Your task to perform on an android device: turn off location history Image 0: 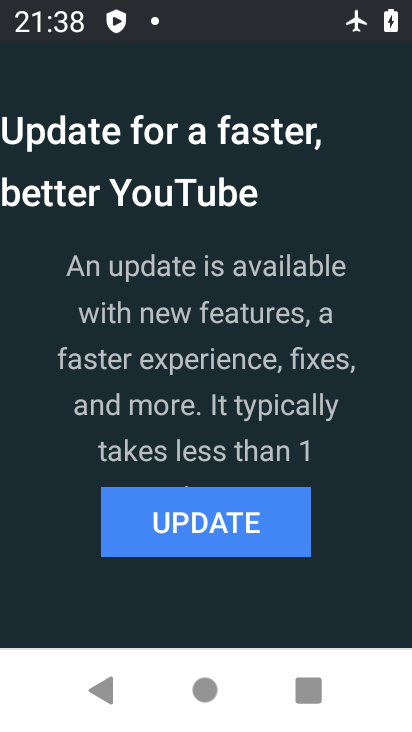
Step 0: press home button
Your task to perform on an android device: turn off location history Image 1: 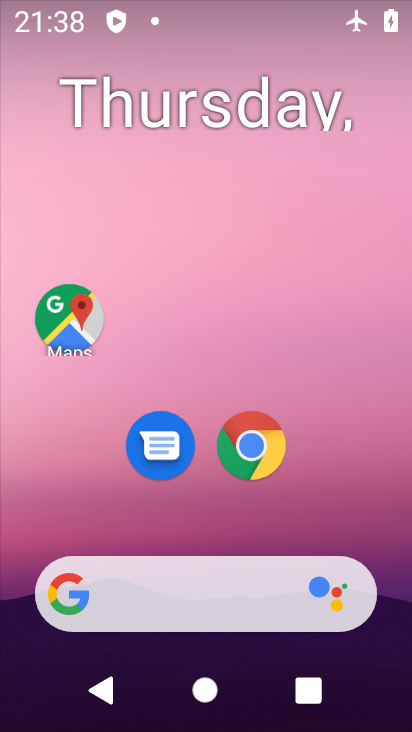
Step 1: drag from (78, 530) to (279, 82)
Your task to perform on an android device: turn off location history Image 2: 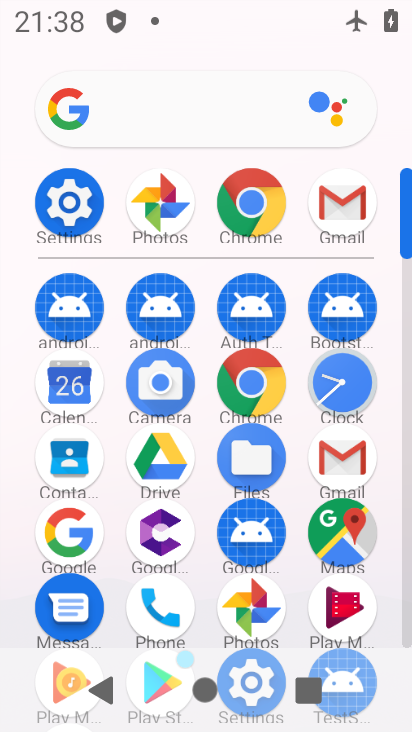
Step 2: click (75, 192)
Your task to perform on an android device: turn off location history Image 3: 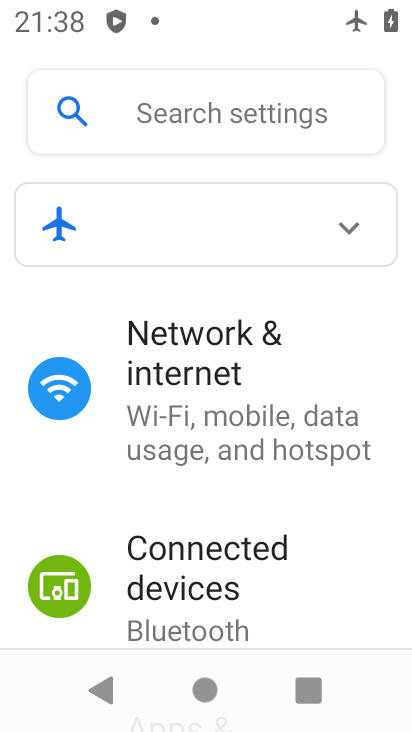
Step 3: drag from (5, 665) to (196, 109)
Your task to perform on an android device: turn off location history Image 4: 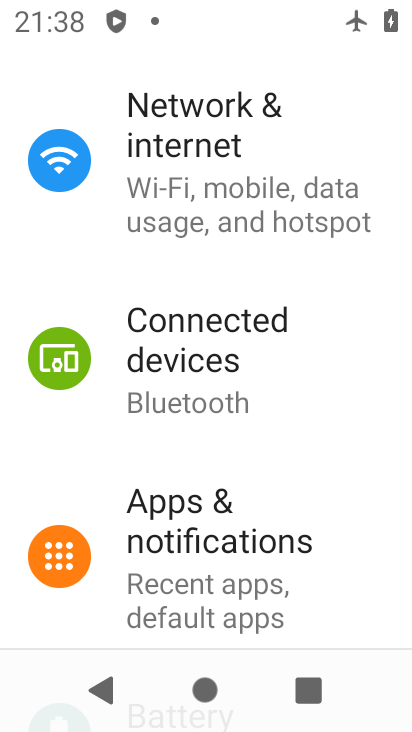
Step 4: drag from (68, 492) to (235, 161)
Your task to perform on an android device: turn off location history Image 5: 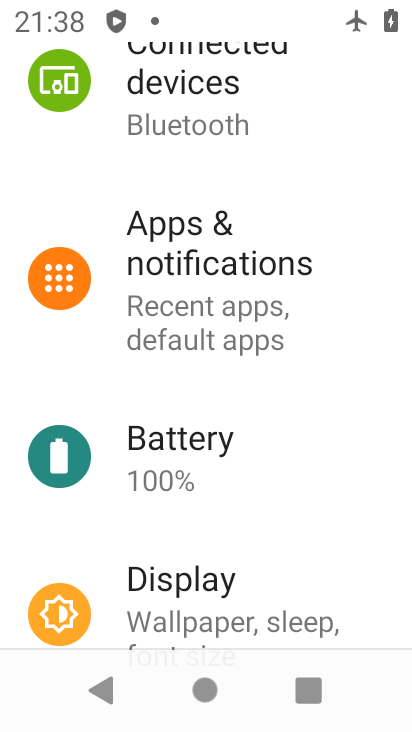
Step 5: drag from (34, 496) to (195, 185)
Your task to perform on an android device: turn off location history Image 6: 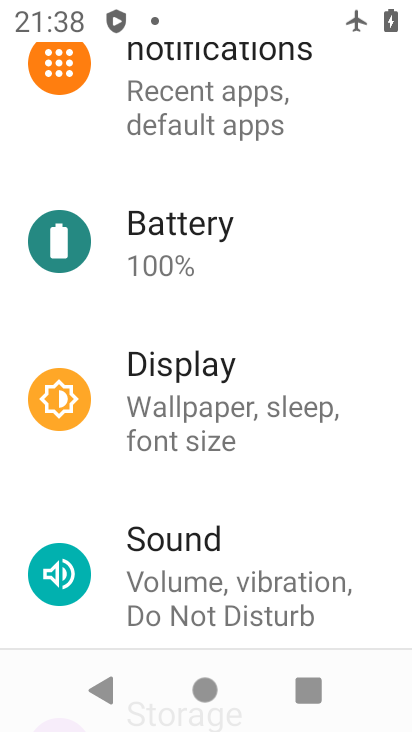
Step 6: drag from (11, 553) to (217, 160)
Your task to perform on an android device: turn off location history Image 7: 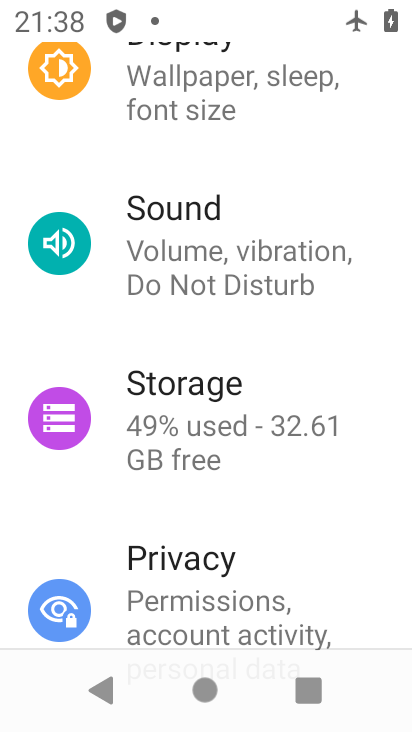
Step 7: drag from (38, 521) to (243, 130)
Your task to perform on an android device: turn off location history Image 8: 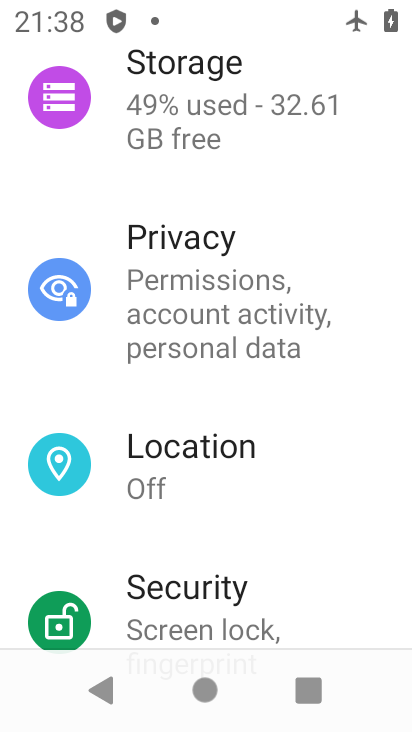
Step 8: click (139, 493)
Your task to perform on an android device: turn off location history Image 9: 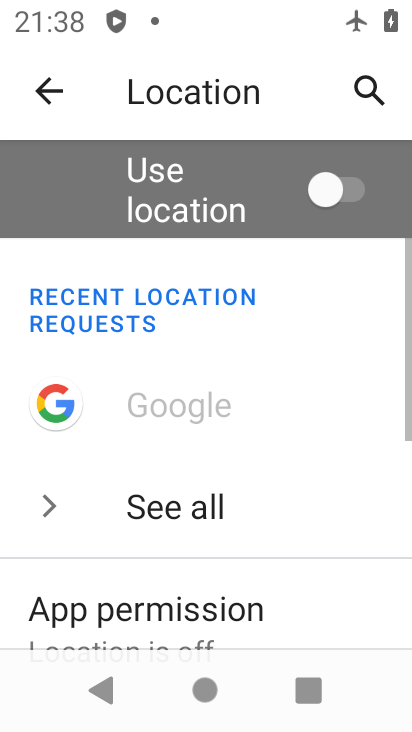
Step 9: drag from (18, 489) to (209, 113)
Your task to perform on an android device: turn off location history Image 10: 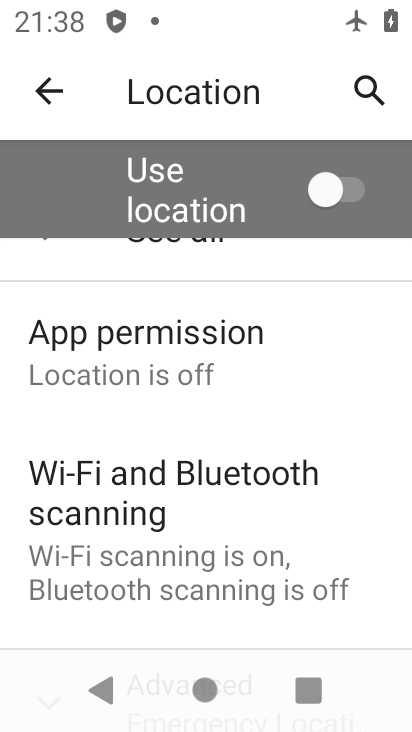
Step 10: drag from (16, 471) to (211, 124)
Your task to perform on an android device: turn off location history Image 11: 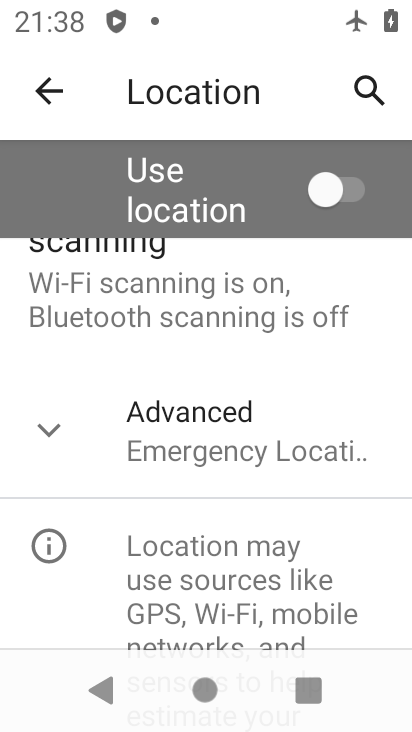
Step 11: click (150, 448)
Your task to perform on an android device: turn off location history Image 12: 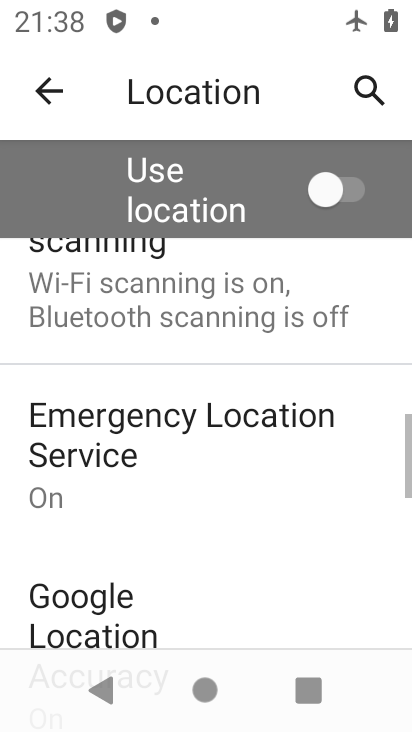
Step 12: drag from (11, 541) to (168, 237)
Your task to perform on an android device: turn off location history Image 13: 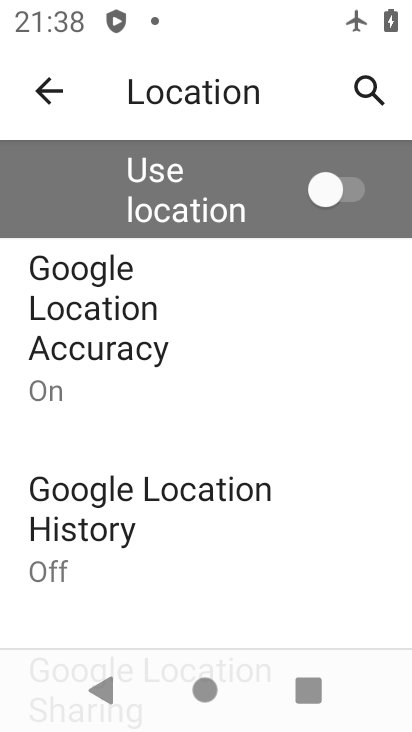
Step 13: click (55, 546)
Your task to perform on an android device: turn off location history Image 14: 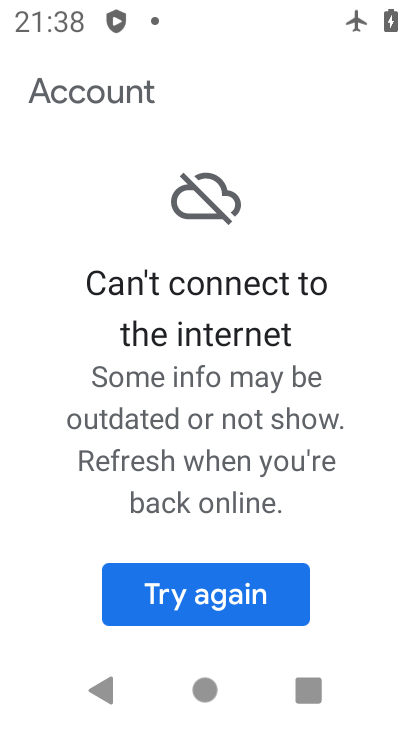
Step 14: task complete